Your task to perform on an android device: add a contact in the contacts app Image 0: 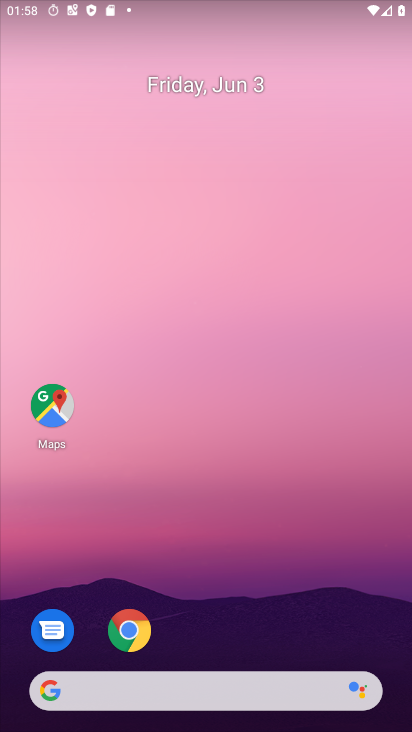
Step 0: drag from (260, 652) to (195, 328)
Your task to perform on an android device: add a contact in the contacts app Image 1: 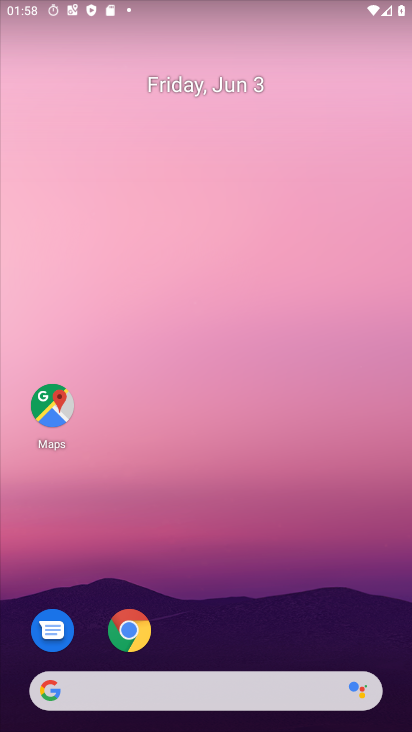
Step 1: drag from (229, 621) to (195, 299)
Your task to perform on an android device: add a contact in the contacts app Image 2: 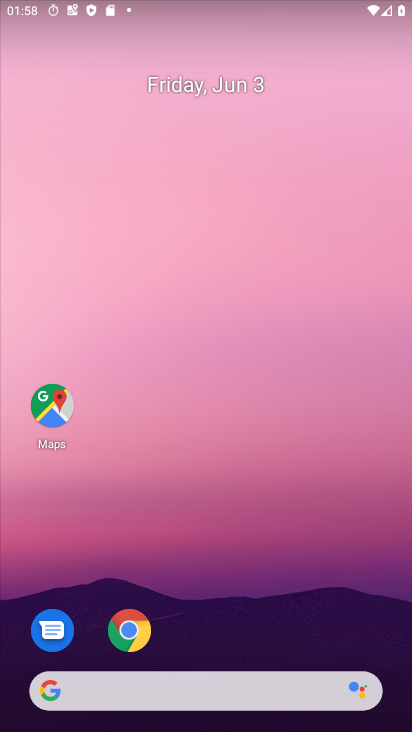
Step 2: drag from (238, 641) to (222, 220)
Your task to perform on an android device: add a contact in the contacts app Image 3: 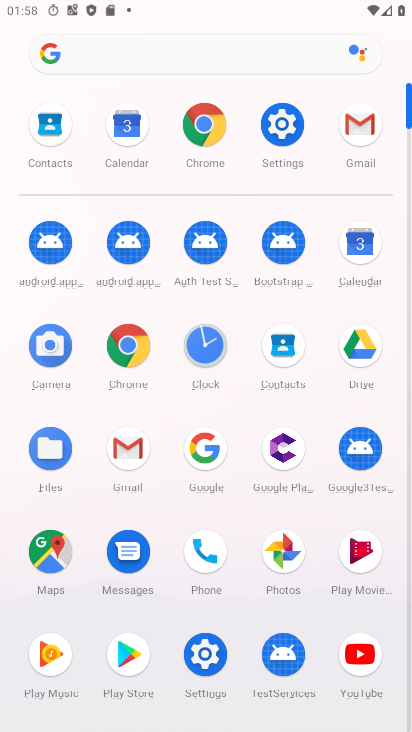
Step 3: click (281, 341)
Your task to perform on an android device: add a contact in the contacts app Image 4: 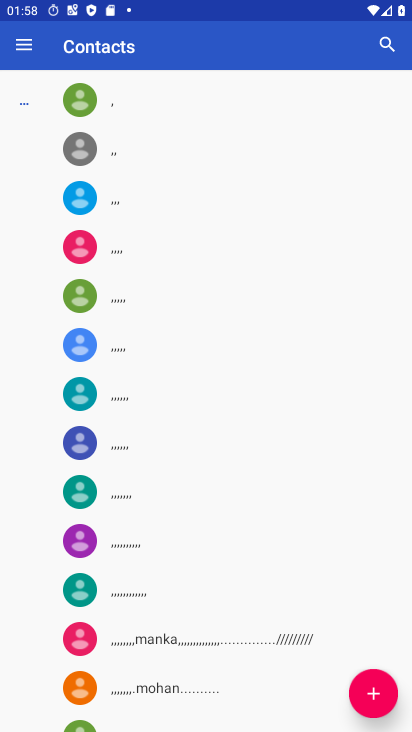
Step 4: click (379, 687)
Your task to perform on an android device: add a contact in the contacts app Image 5: 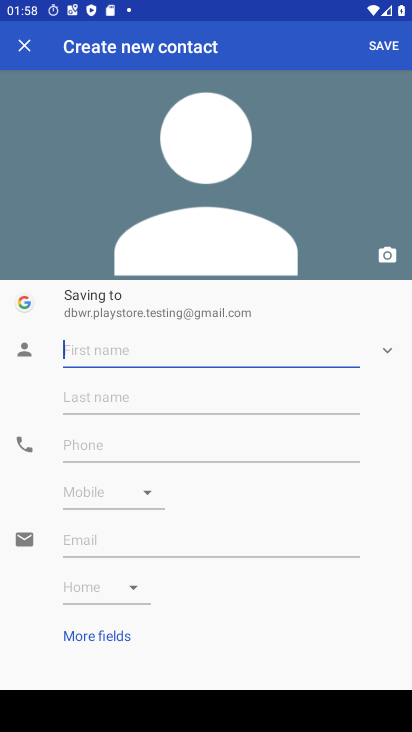
Step 5: click (186, 344)
Your task to perform on an android device: add a contact in the contacts app Image 6: 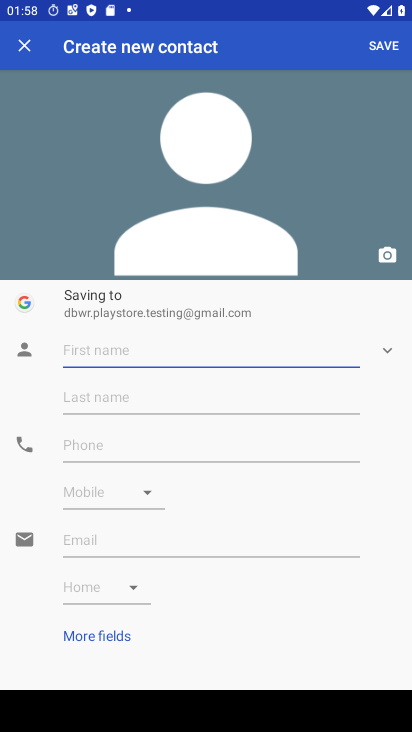
Step 6: type "vjvjvjvj"
Your task to perform on an android device: add a contact in the contacts app Image 7: 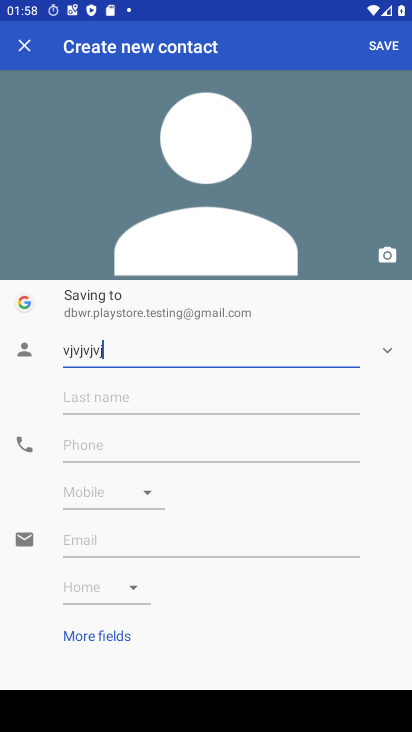
Step 7: click (219, 442)
Your task to perform on an android device: add a contact in the contacts app Image 8: 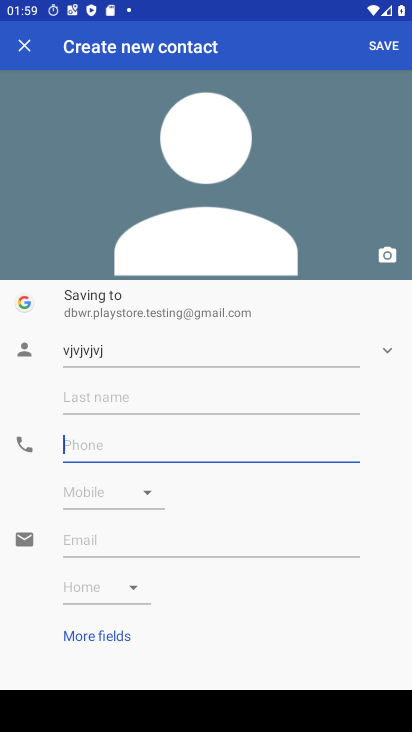
Step 8: type "678967679"
Your task to perform on an android device: add a contact in the contacts app Image 9: 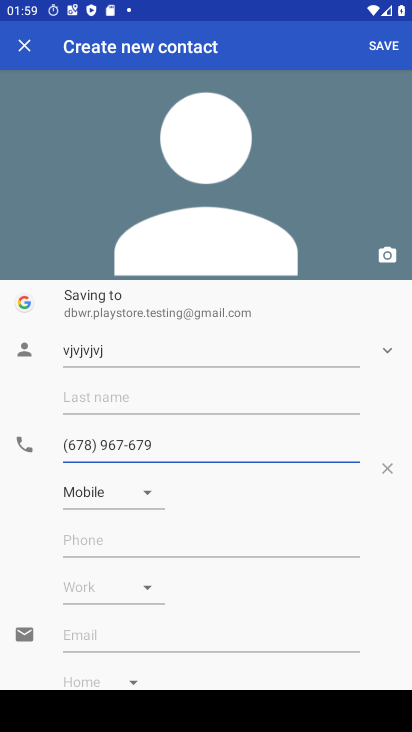
Step 9: click (386, 50)
Your task to perform on an android device: add a contact in the contacts app Image 10: 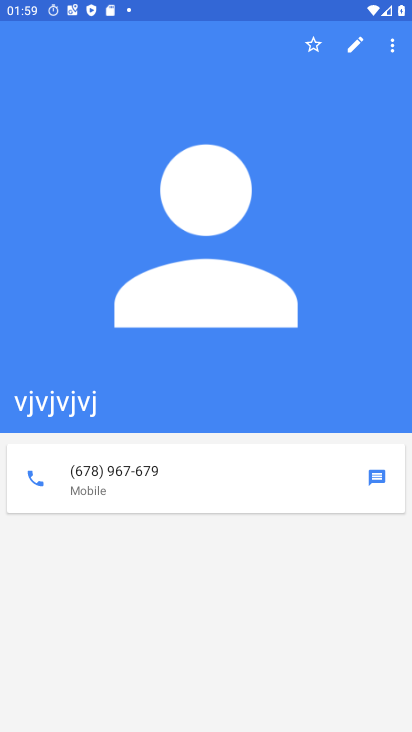
Step 10: task complete